Your task to perform on an android device: toggle wifi Image 0: 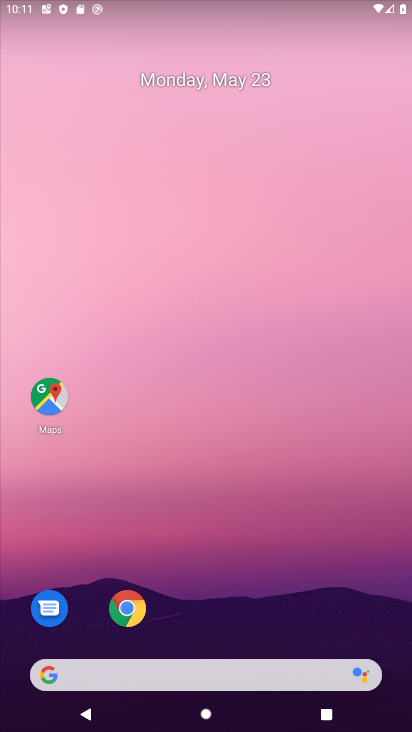
Step 0: drag from (230, 595) to (308, 157)
Your task to perform on an android device: toggle wifi Image 1: 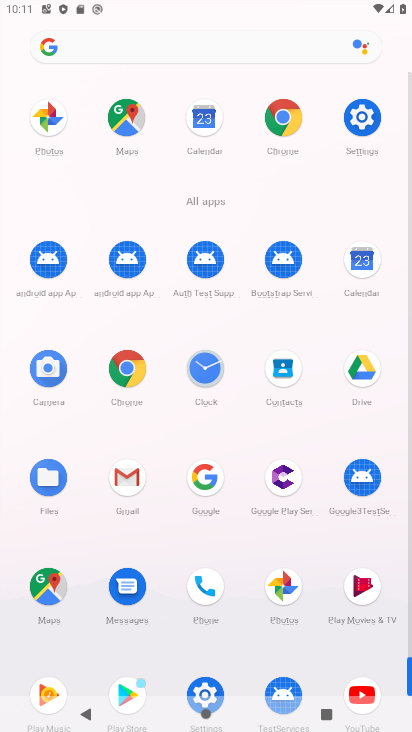
Step 1: click (205, 686)
Your task to perform on an android device: toggle wifi Image 2: 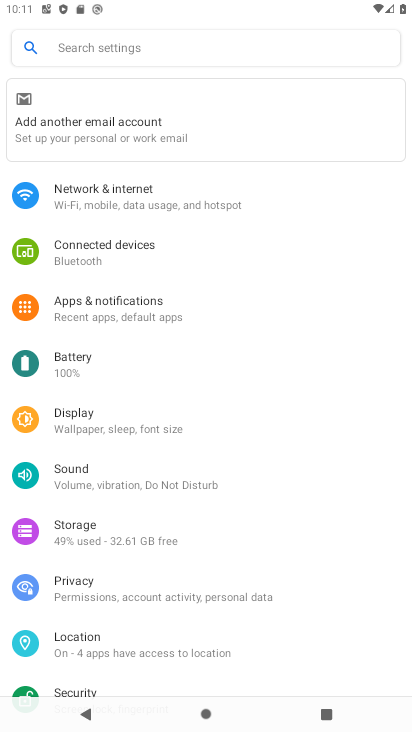
Step 2: click (207, 195)
Your task to perform on an android device: toggle wifi Image 3: 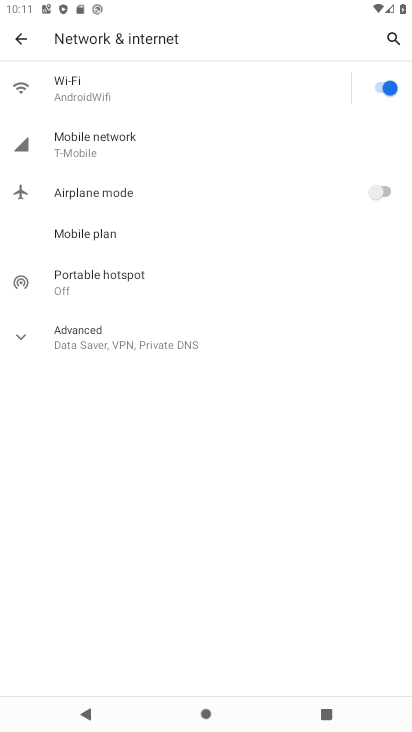
Step 3: click (381, 88)
Your task to perform on an android device: toggle wifi Image 4: 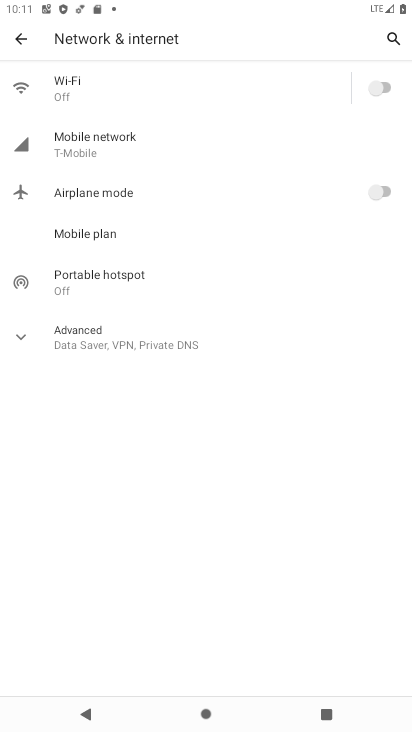
Step 4: task complete